Your task to perform on an android device: Open notification settings Image 0: 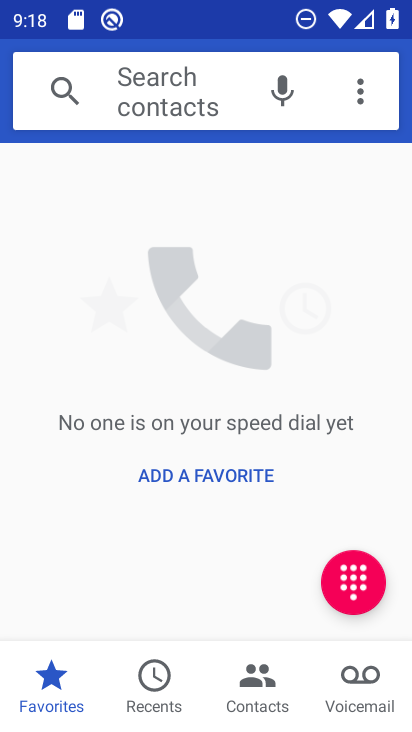
Step 0: press home button
Your task to perform on an android device: Open notification settings Image 1: 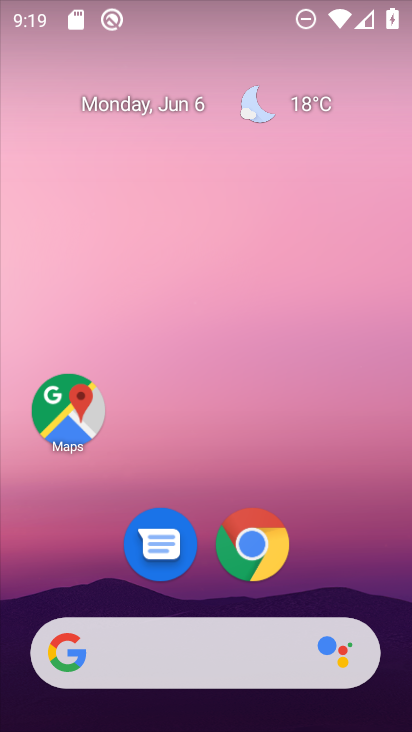
Step 1: drag from (405, 661) to (336, 239)
Your task to perform on an android device: Open notification settings Image 2: 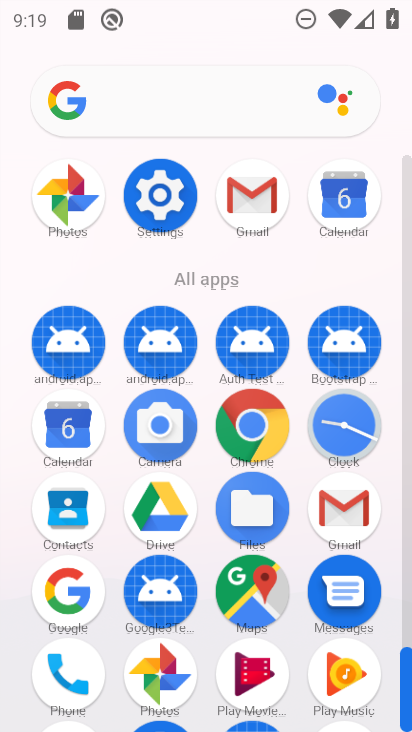
Step 2: click (406, 617)
Your task to perform on an android device: Open notification settings Image 3: 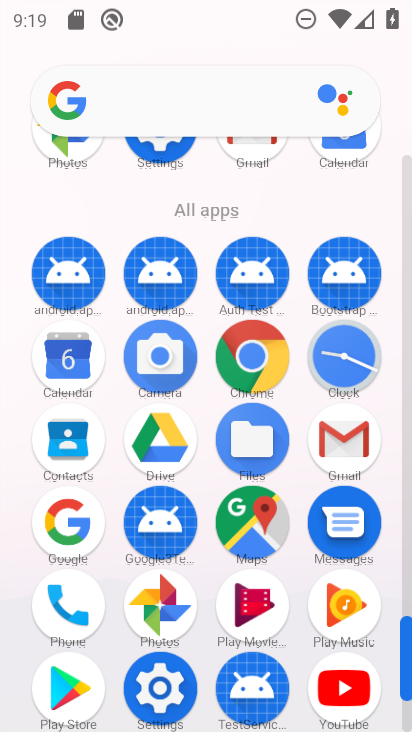
Step 3: click (162, 691)
Your task to perform on an android device: Open notification settings Image 4: 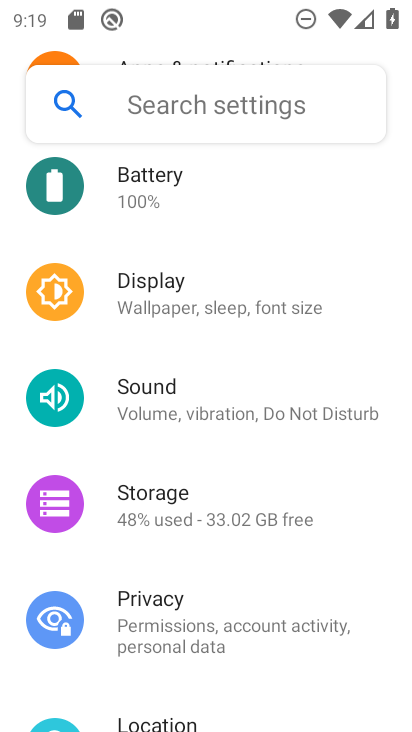
Step 4: drag from (393, 244) to (383, 476)
Your task to perform on an android device: Open notification settings Image 5: 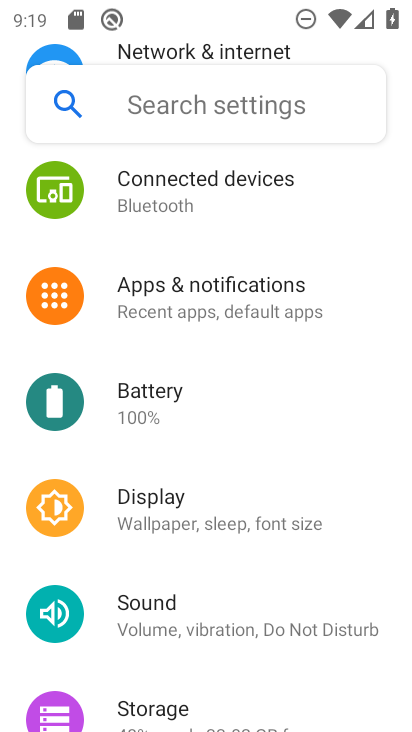
Step 5: click (202, 285)
Your task to perform on an android device: Open notification settings Image 6: 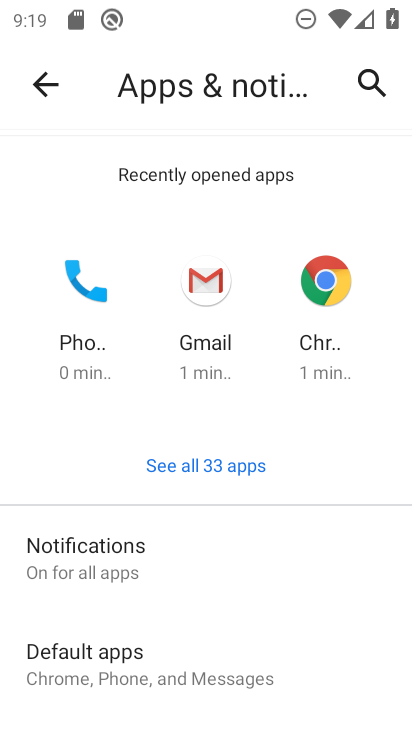
Step 6: drag from (322, 626) to (328, 471)
Your task to perform on an android device: Open notification settings Image 7: 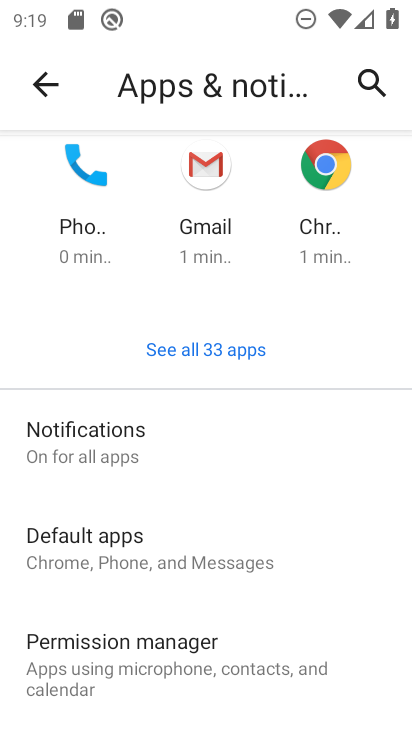
Step 7: click (84, 446)
Your task to perform on an android device: Open notification settings Image 8: 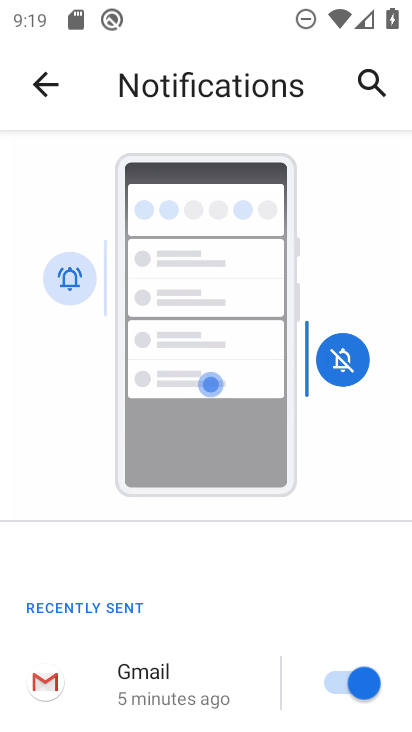
Step 8: drag from (279, 677) to (227, 248)
Your task to perform on an android device: Open notification settings Image 9: 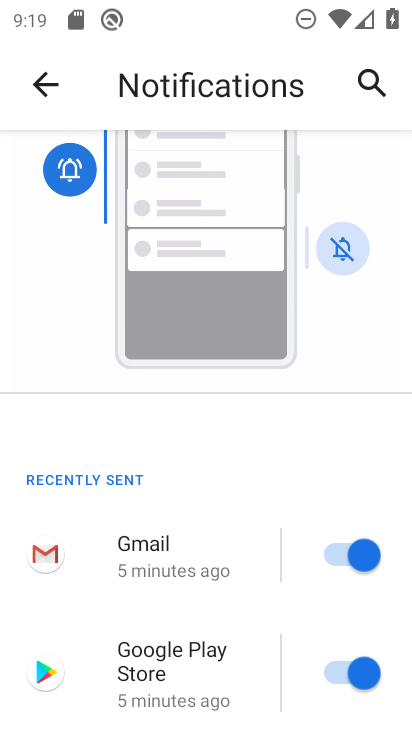
Step 9: drag from (286, 702) to (241, 253)
Your task to perform on an android device: Open notification settings Image 10: 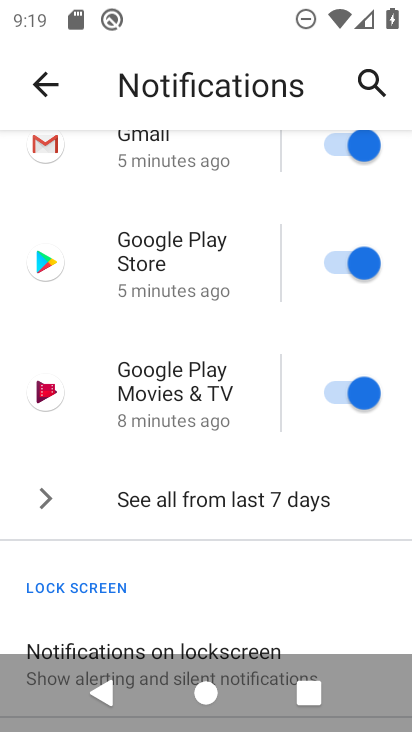
Step 10: drag from (276, 604) to (258, 266)
Your task to perform on an android device: Open notification settings Image 11: 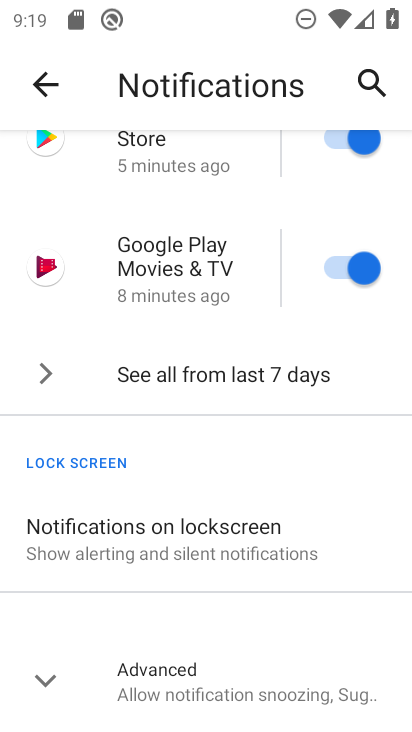
Step 11: click (49, 679)
Your task to perform on an android device: Open notification settings Image 12: 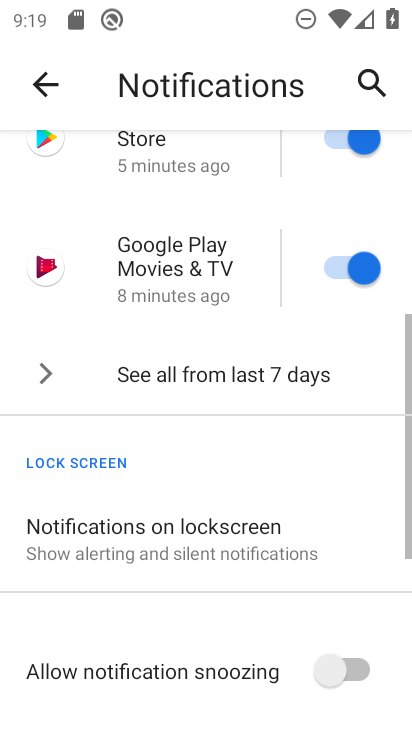
Step 12: task complete